Your task to perform on an android device: toggle data saver in the chrome app Image 0: 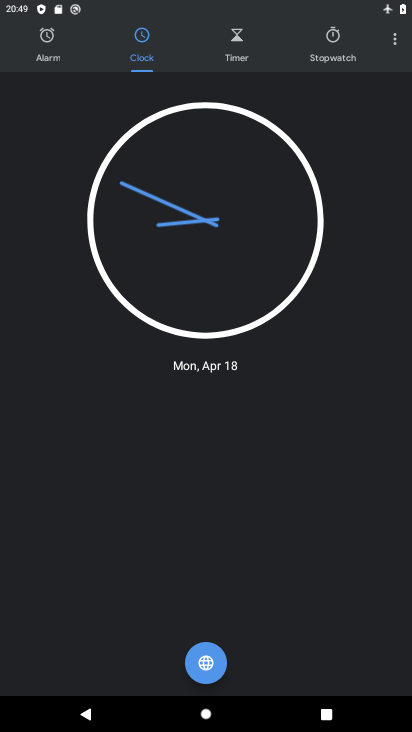
Step 0: press home button
Your task to perform on an android device: toggle data saver in the chrome app Image 1: 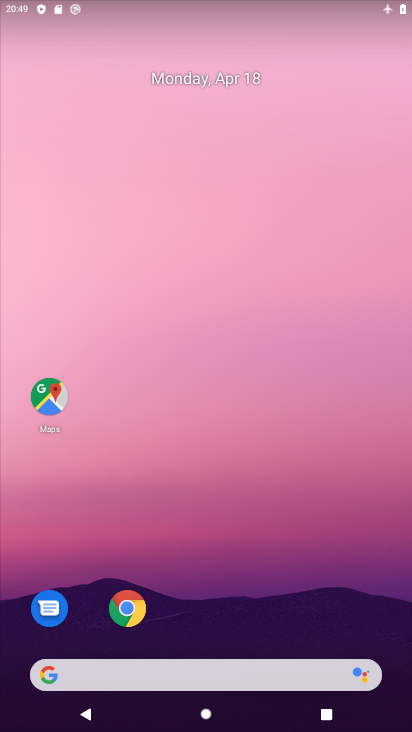
Step 1: click (123, 613)
Your task to perform on an android device: toggle data saver in the chrome app Image 2: 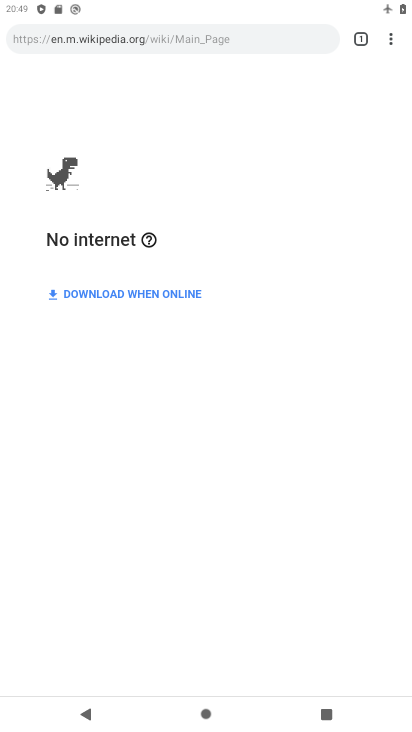
Step 2: click (392, 37)
Your task to perform on an android device: toggle data saver in the chrome app Image 3: 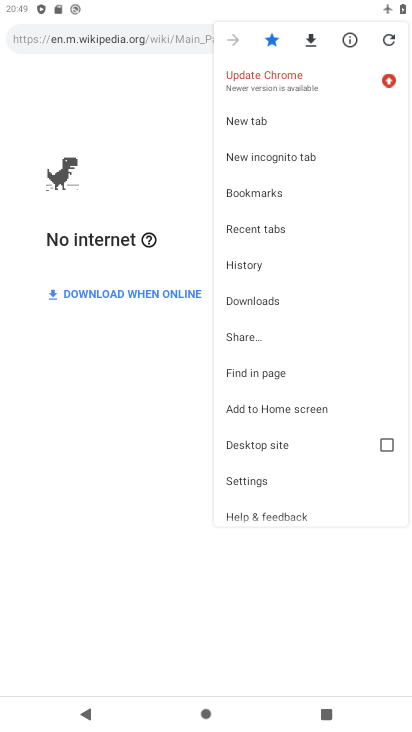
Step 3: click (259, 488)
Your task to perform on an android device: toggle data saver in the chrome app Image 4: 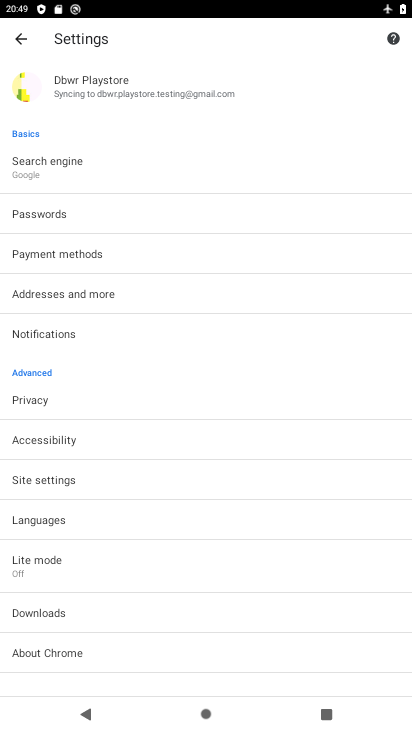
Step 4: click (127, 569)
Your task to perform on an android device: toggle data saver in the chrome app Image 5: 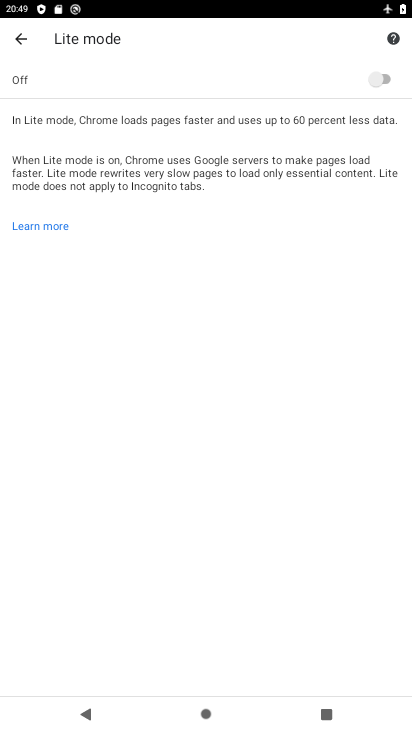
Step 5: click (378, 82)
Your task to perform on an android device: toggle data saver in the chrome app Image 6: 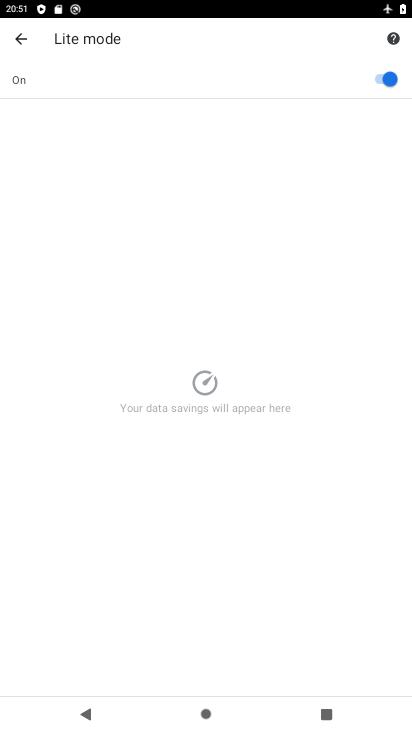
Step 6: task complete